Your task to perform on an android device: Open Amazon Image 0: 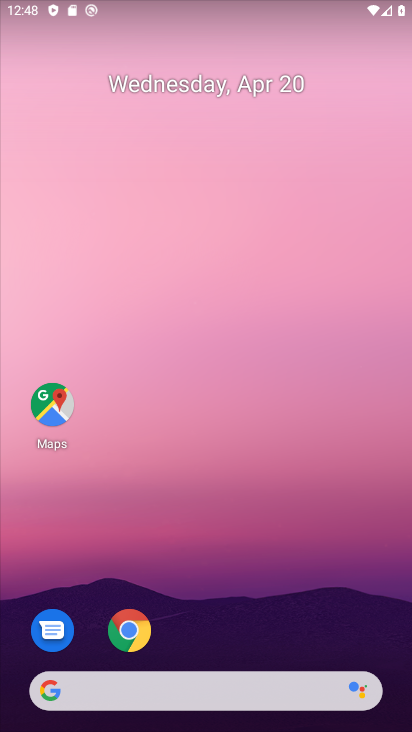
Step 0: drag from (367, 584) to (300, 161)
Your task to perform on an android device: Open Amazon Image 1: 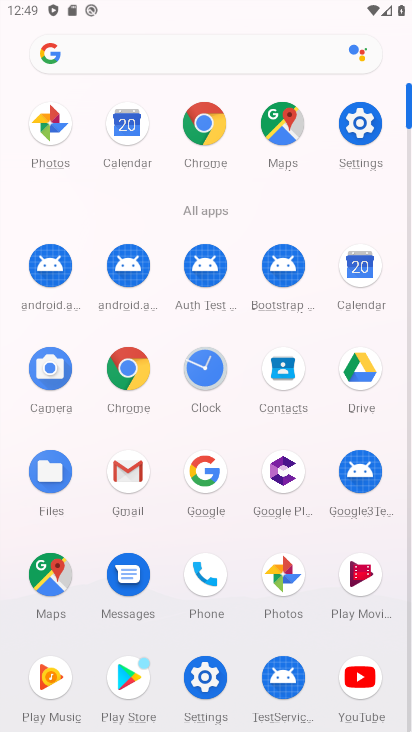
Step 1: click (118, 378)
Your task to perform on an android device: Open Amazon Image 2: 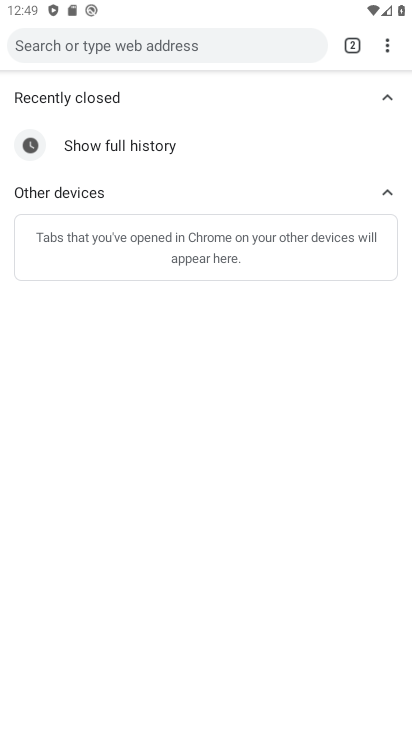
Step 2: click (389, 53)
Your task to perform on an android device: Open Amazon Image 3: 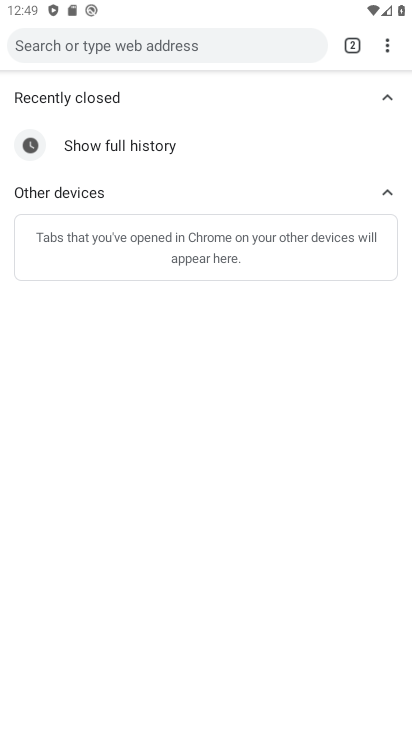
Step 3: click (389, 53)
Your task to perform on an android device: Open Amazon Image 4: 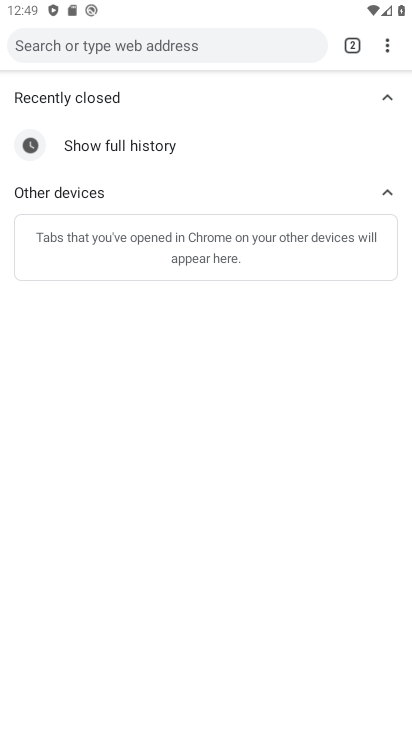
Step 4: click (108, 46)
Your task to perform on an android device: Open Amazon Image 5: 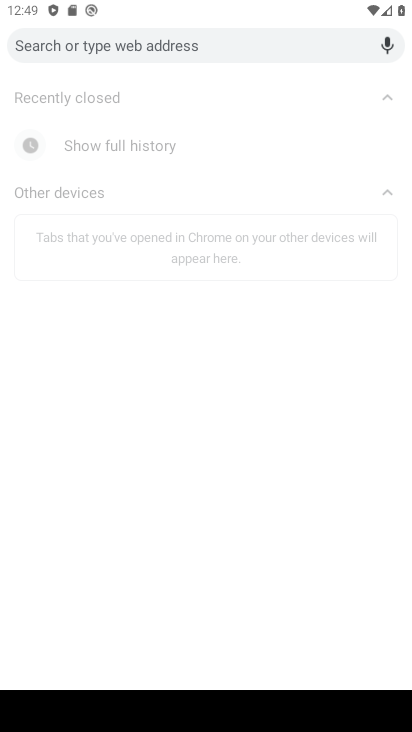
Step 5: type "amazon "
Your task to perform on an android device: Open Amazon Image 6: 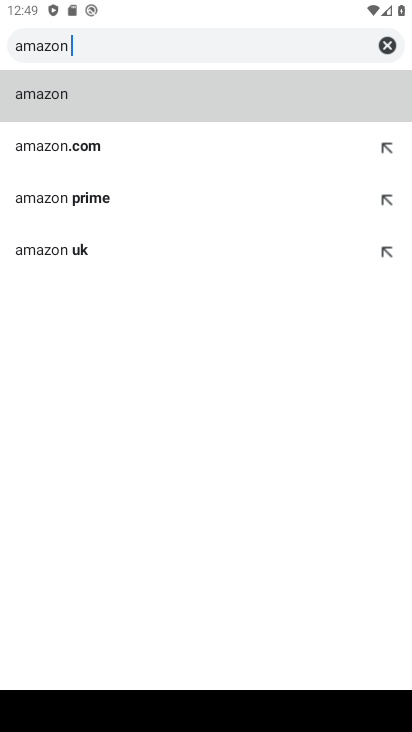
Step 6: click (128, 93)
Your task to perform on an android device: Open Amazon Image 7: 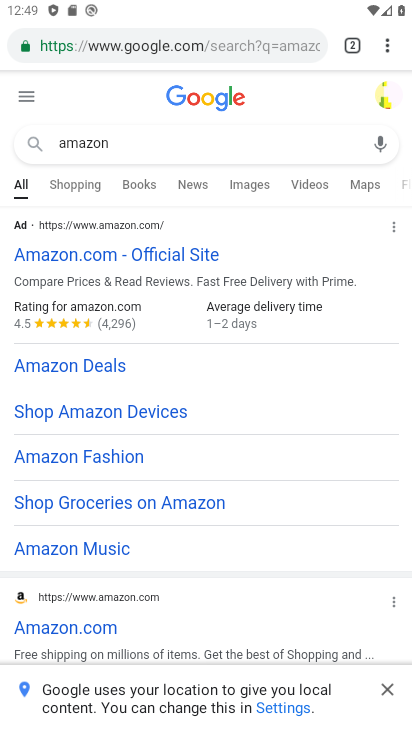
Step 7: click (108, 259)
Your task to perform on an android device: Open Amazon Image 8: 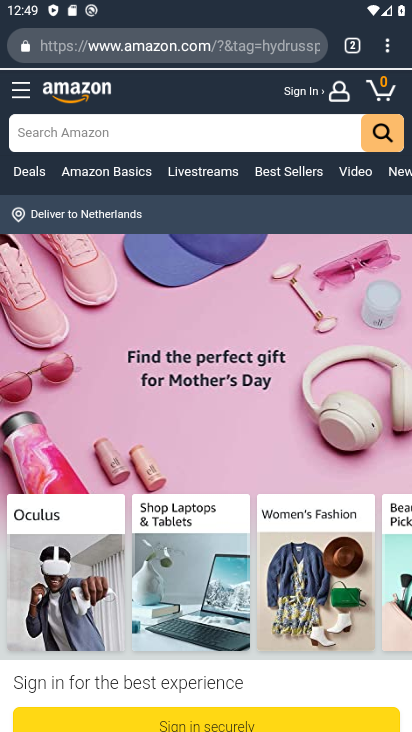
Step 8: task complete